Your task to perform on an android device: snooze an email in the gmail app Image 0: 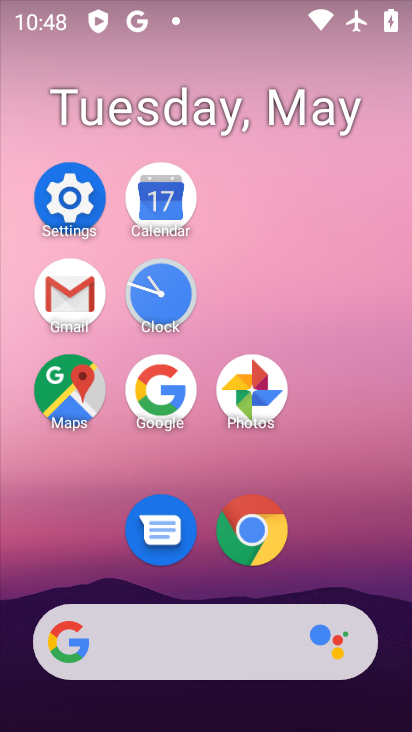
Step 0: click (89, 282)
Your task to perform on an android device: snooze an email in the gmail app Image 1: 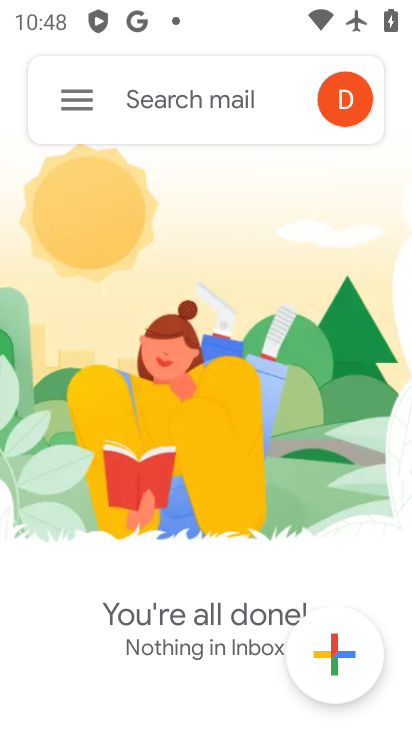
Step 1: click (83, 127)
Your task to perform on an android device: snooze an email in the gmail app Image 2: 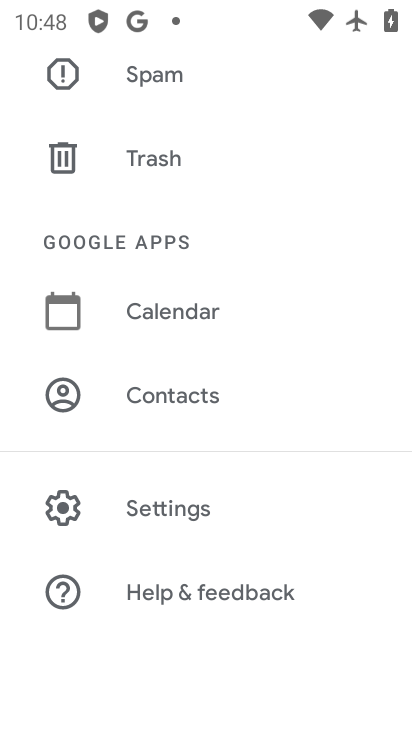
Step 2: drag from (221, 158) to (222, 514)
Your task to perform on an android device: snooze an email in the gmail app Image 3: 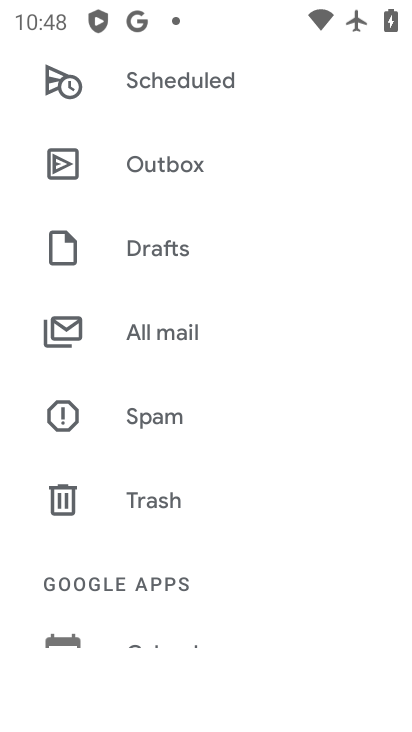
Step 3: drag from (300, 288) to (294, 432)
Your task to perform on an android device: snooze an email in the gmail app Image 4: 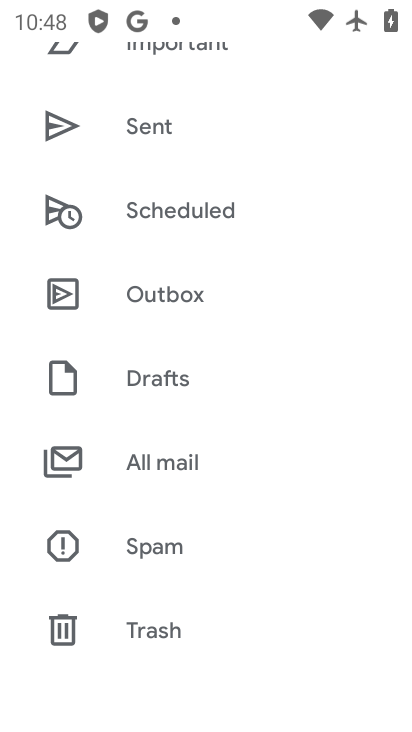
Step 4: click (189, 467)
Your task to perform on an android device: snooze an email in the gmail app Image 5: 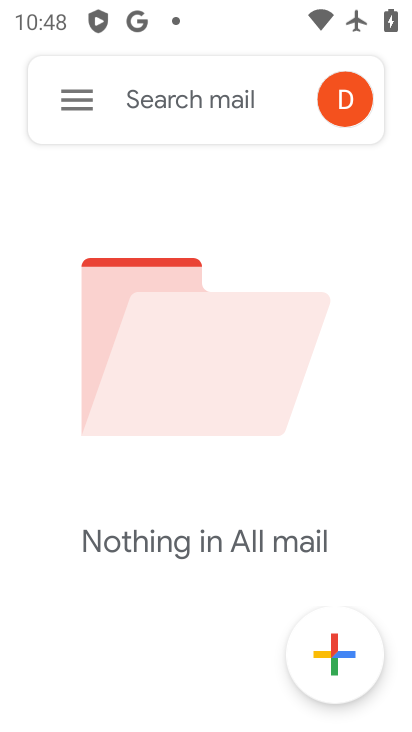
Step 5: task complete